Your task to perform on an android device: Check the settings for the Twitter app Image 0: 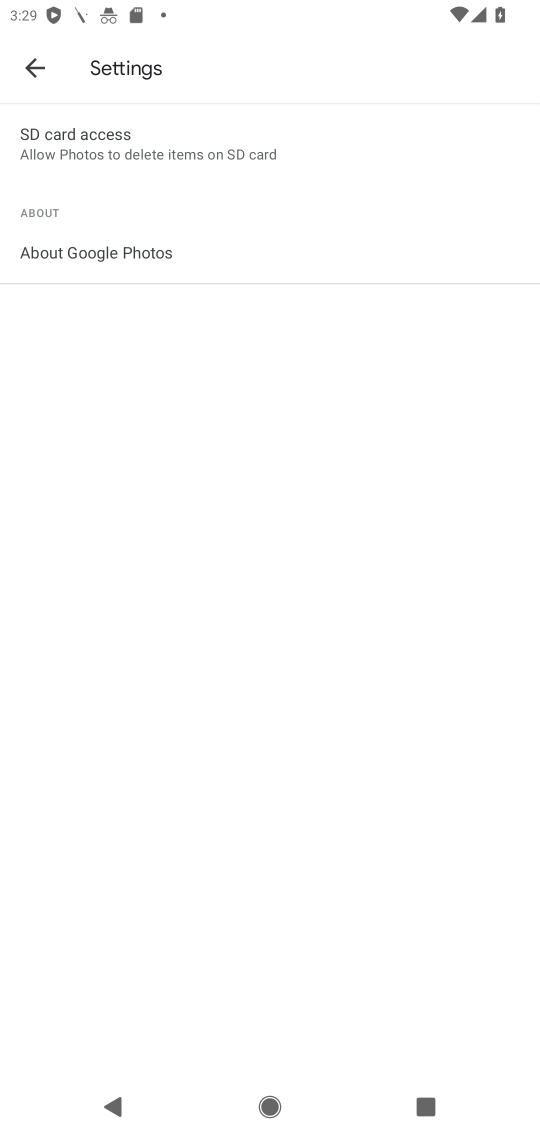
Step 0: press home button
Your task to perform on an android device: Check the settings for the Twitter app Image 1: 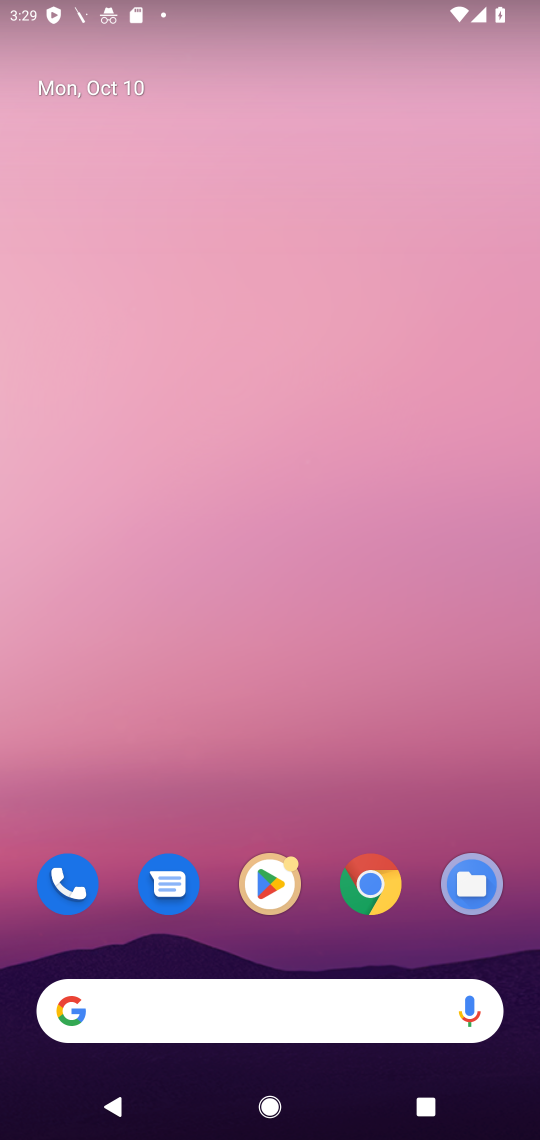
Step 1: task complete